Your task to perform on an android device: turn off sleep mode Image 0: 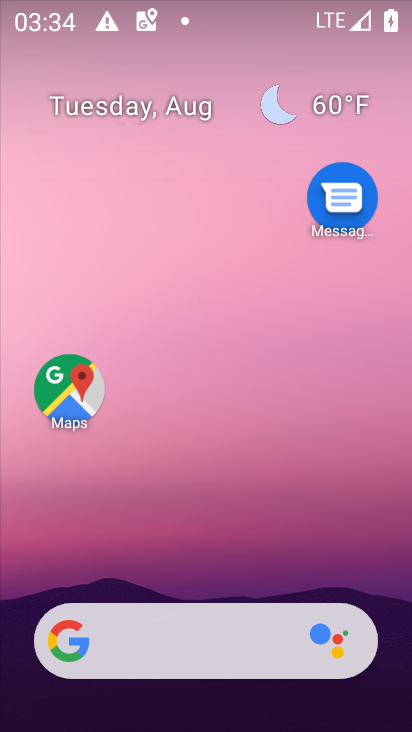
Step 0: drag from (231, 601) to (200, 56)
Your task to perform on an android device: turn off sleep mode Image 1: 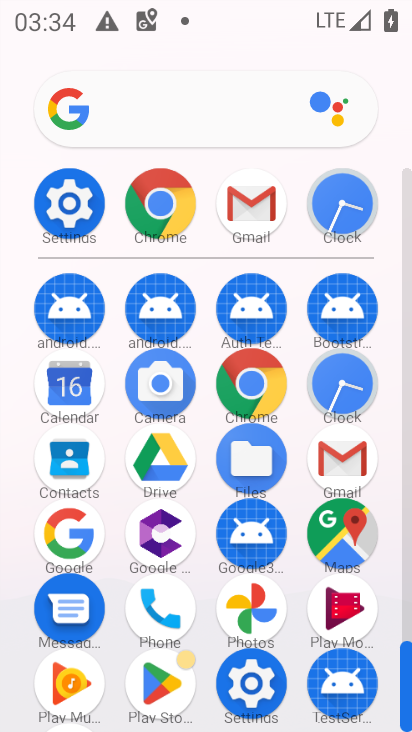
Step 1: click (86, 201)
Your task to perform on an android device: turn off sleep mode Image 2: 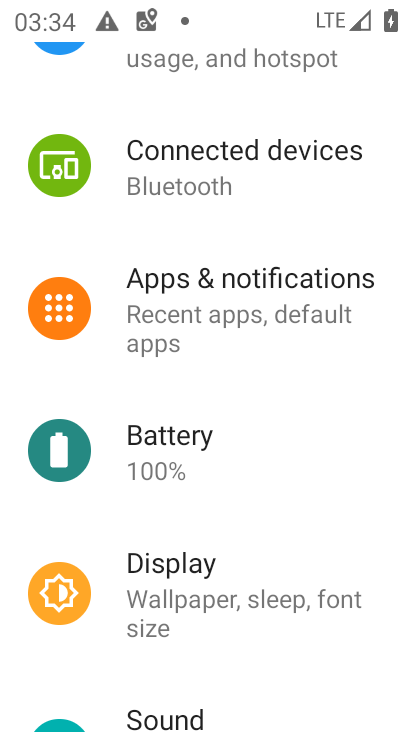
Step 2: click (209, 564)
Your task to perform on an android device: turn off sleep mode Image 3: 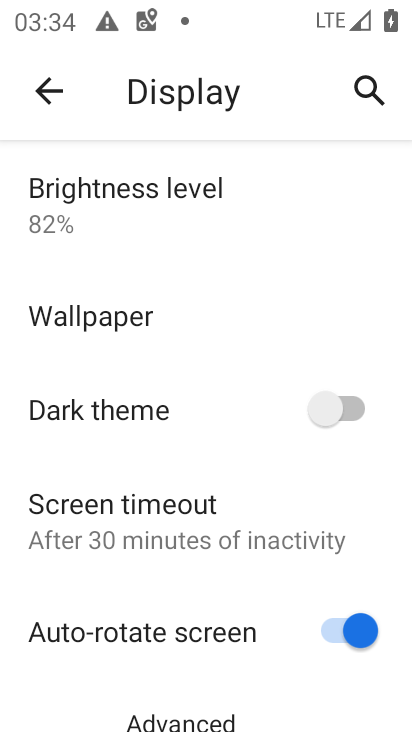
Step 3: task complete